Your task to perform on an android device: Go to display settings Image 0: 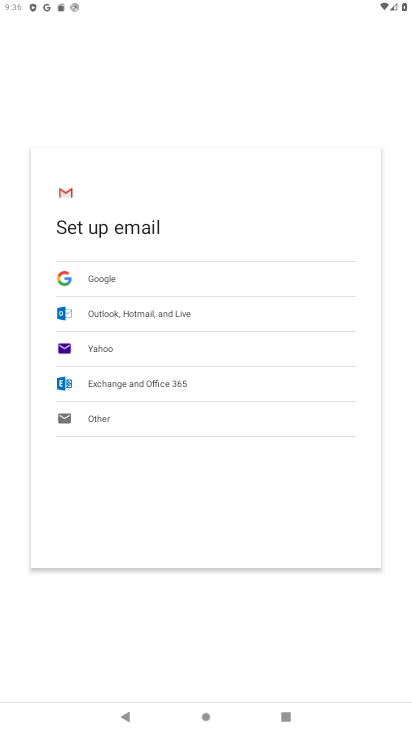
Step 0: press home button
Your task to perform on an android device: Go to display settings Image 1: 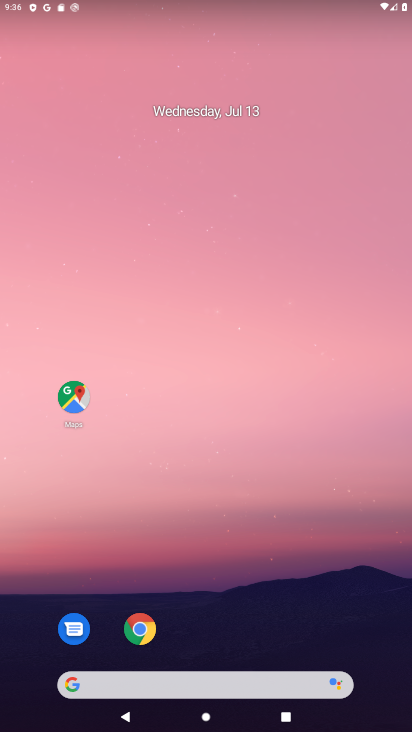
Step 1: drag from (217, 647) to (228, 38)
Your task to perform on an android device: Go to display settings Image 2: 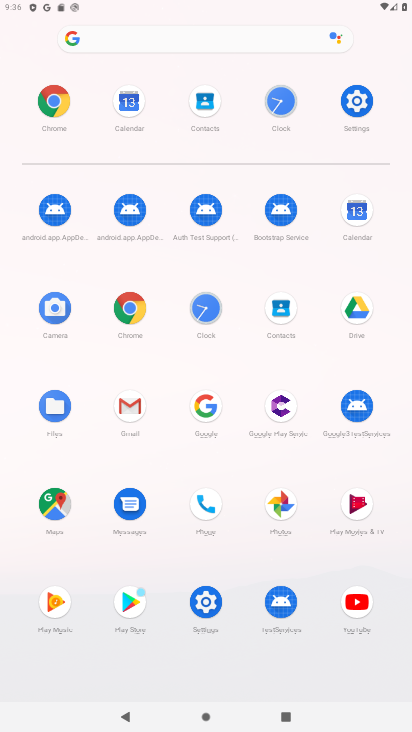
Step 2: click (219, 617)
Your task to perform on an android device: Go to display settings Image 3: 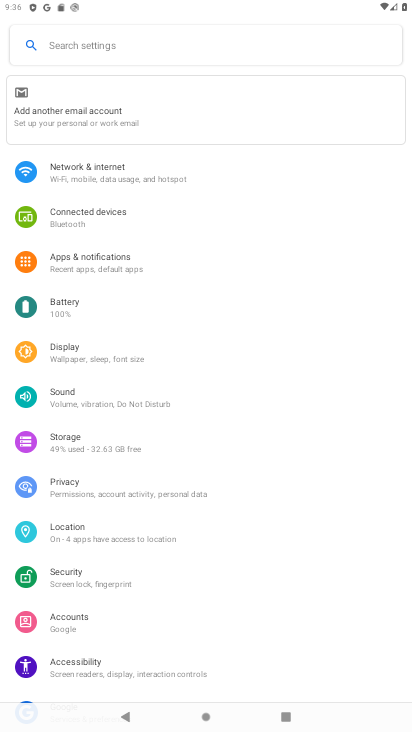
Step 3: click (163, 358)
Your task to perform on an android device: Go to display settings Image 4: 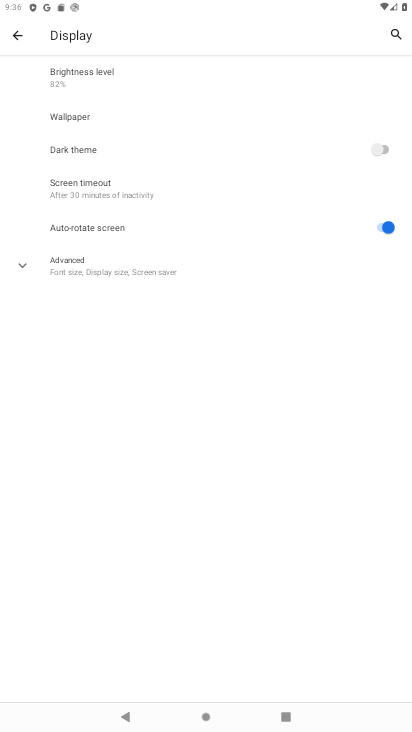
Step 4: task complete